Your task to perform on an android device: Open wifi settings Image 0: 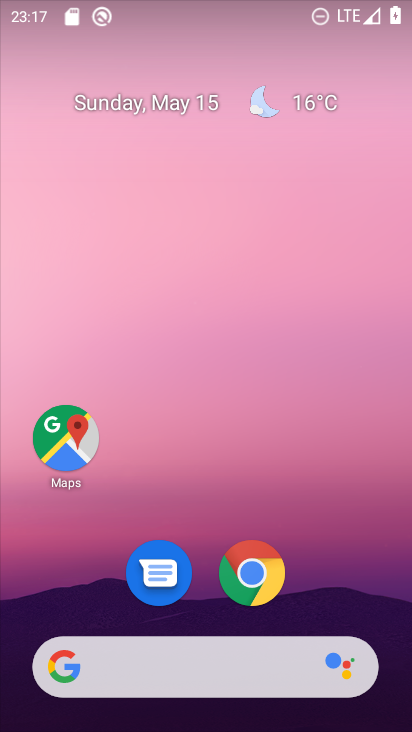
Step 0: drag from (225, 7) to (330, 696)
Your task to perform on an android device: Open wifi settings Image 1: 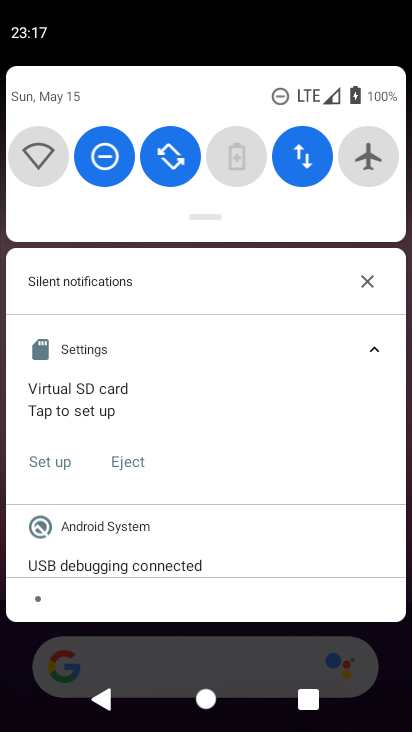
Step 1: click (42, 169)
Your task to perform on an android device: Open wifi settings Image 2: 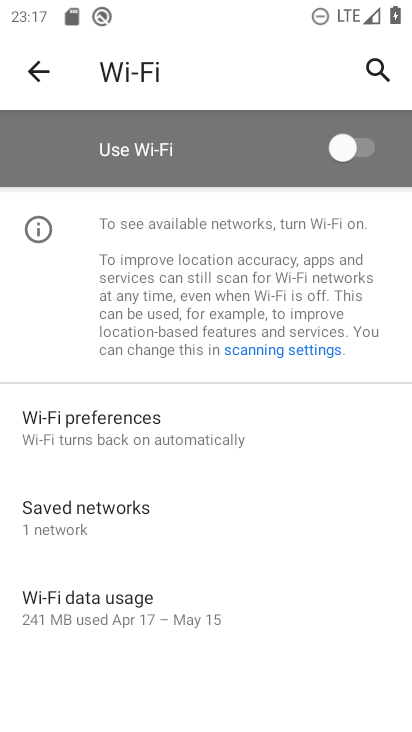
Step 2: task complete